Your task to perform on an android device: What's the weather? Image 0: 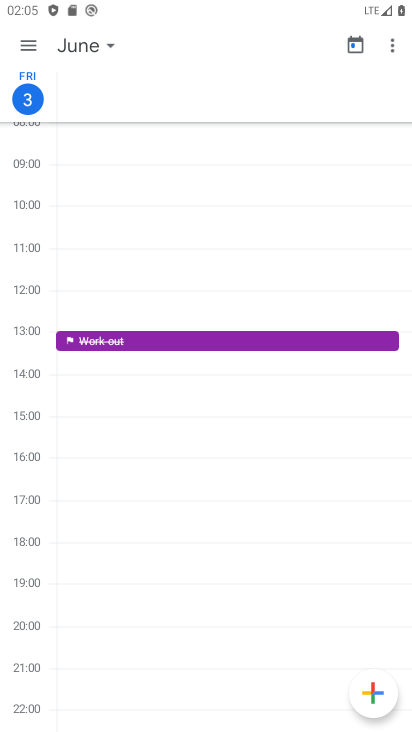
Step 0: press home button
Your task to perform on an android device: What's the weather? Image 1: 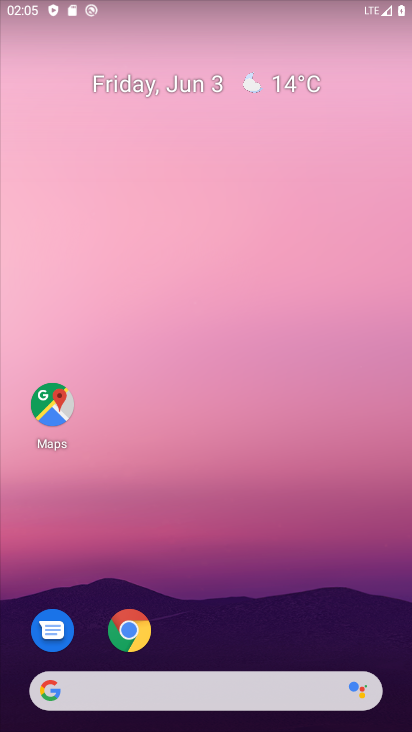
Step 1: click (280, 84)
Your task to perform on an android device: What's the weather? Image 2: 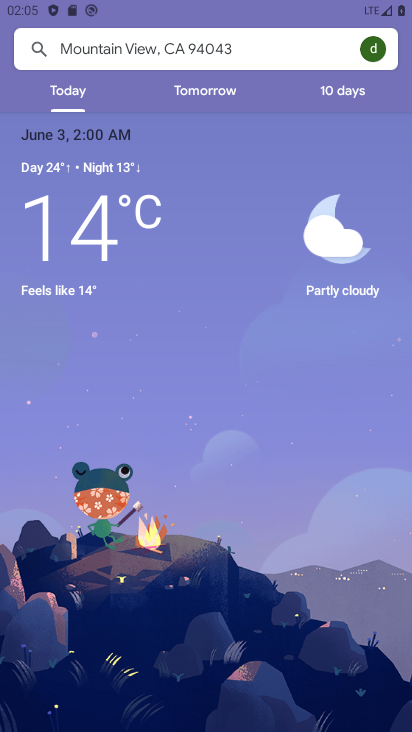
Step 2: task complete